Your task to perform on an android device: Search for pizza restaurants on Maps Image 0: 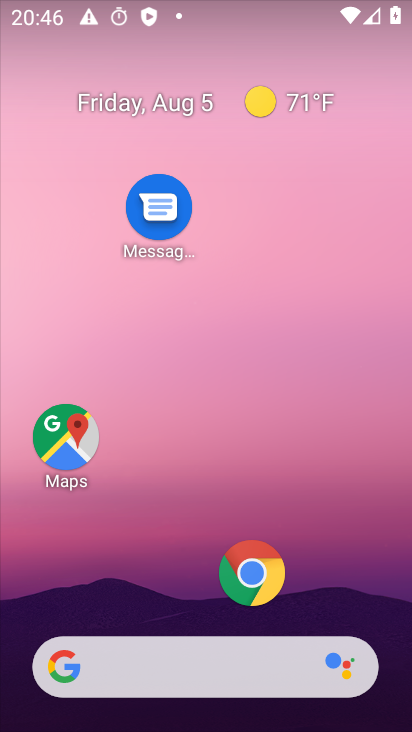
Step 0: press home button
Your task to perform on an android device: Search for pizza restaurants on Maps Image 1: 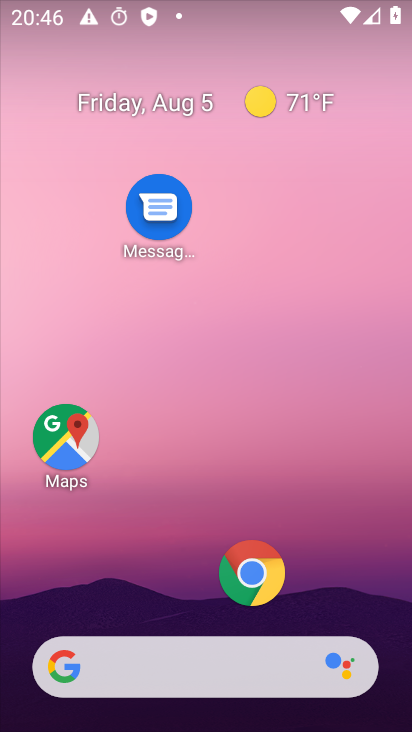
Step 1: drag from (326, 616) to (351, 22)
Your task to perform on an android device: Search for pizza restaurants on Maps Image 2: 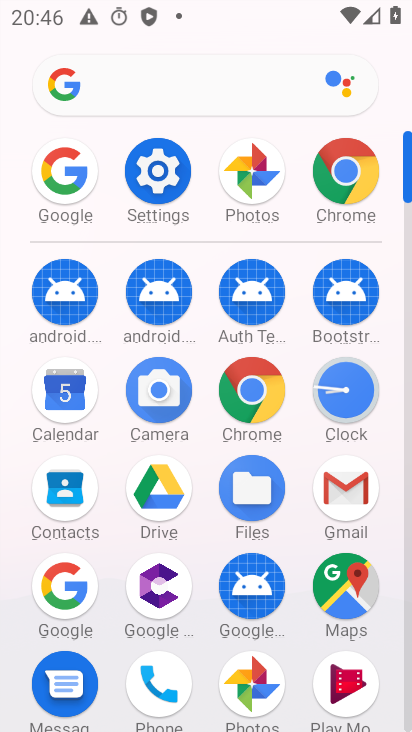
Step 2: click (340, 585)
Your task to perform on an android device: Search for pizza restaurants on Maps Image 3: 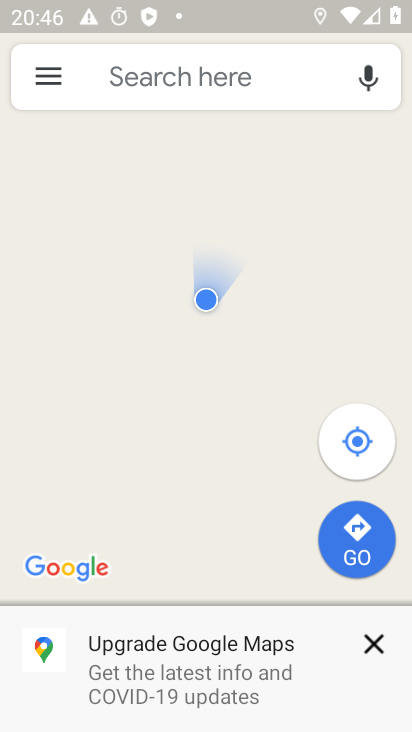
Step 3: click (140, 75)
Your task to perform on an android device: Search for pizza restaurants on Maps Image 4: 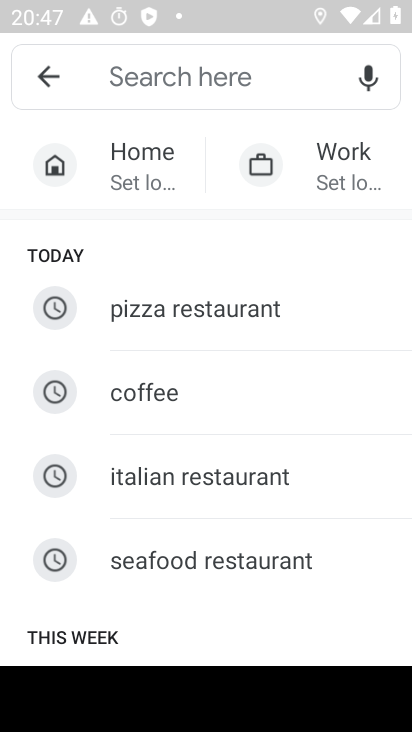
Step 4: click (133, 314)
Your task to perform on an android device: Search for pizza restaurants on Maps Image 5: 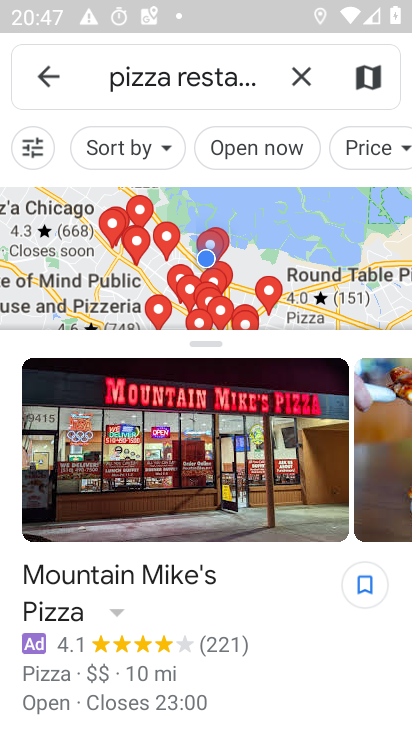
Step 5: task complete